Your task to perform on an android device: visit the assistant section in the google photos Image 0: 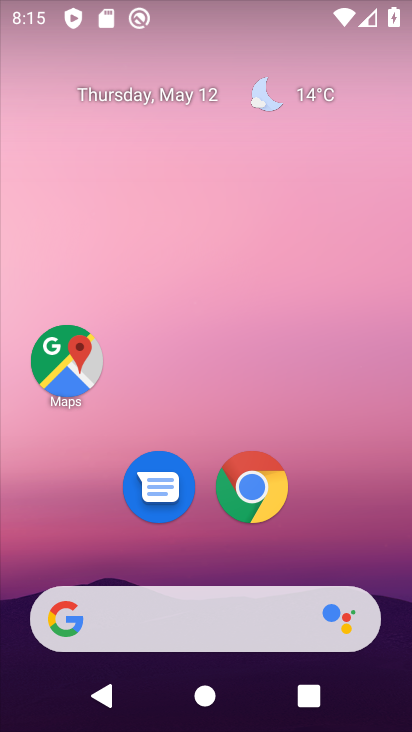
Step 0: drag from (368, 536) to (363, 0)
Your task to perform on an android device: visit the assistant section in the google photos Image 1: 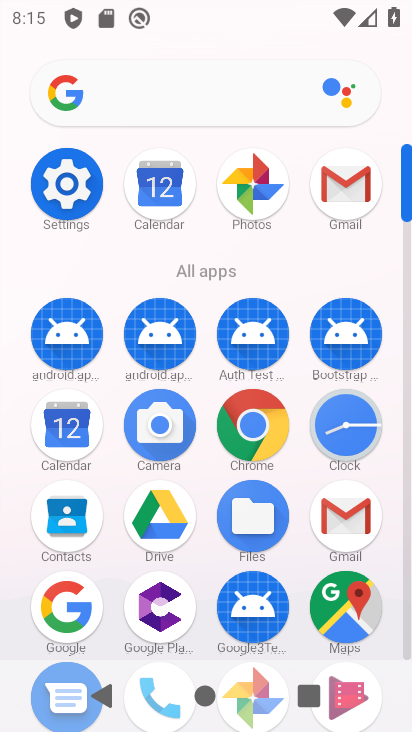
Step 1: click (252, 188)
Your task to perform on an android device: visit the assistant section in the google photos Image 2: 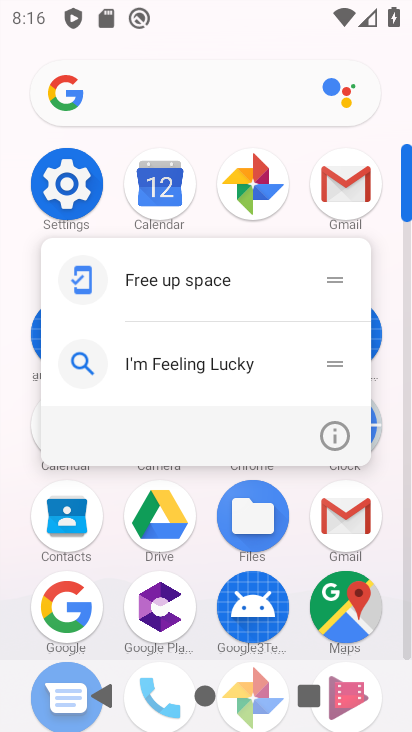
Step 2: click (252, 188)
Your task to perform on an android device: visit the assistant section in the google photos Image 3: 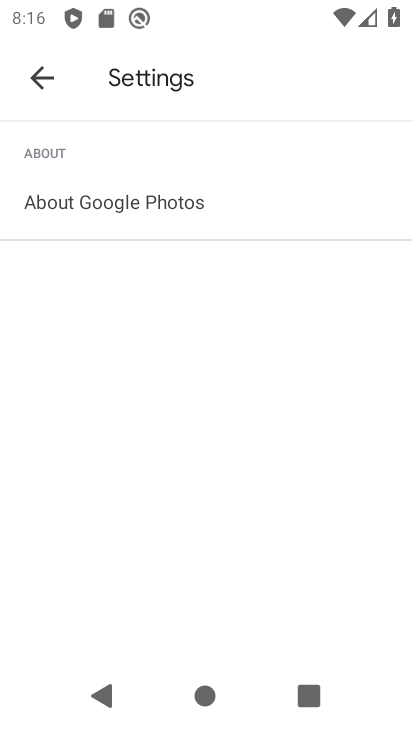
Step 3: click (41, 84)
Your task to perform on an android device: visit the assistant section in the google photos Image 4: 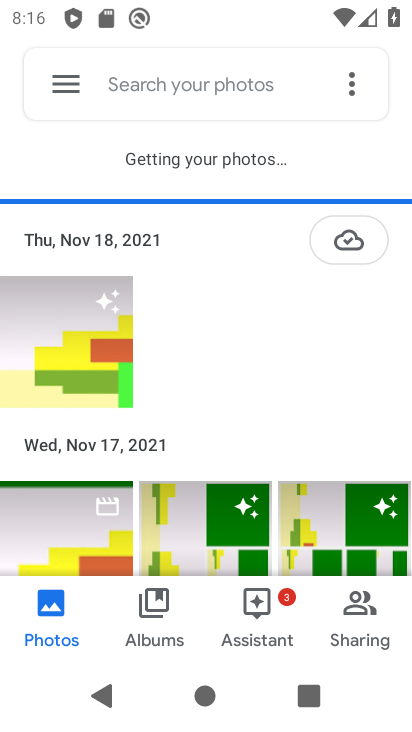
Step 4: click (268, 624)
Your task to perform on an android device: visit the assistant section in the google photos Image 5: 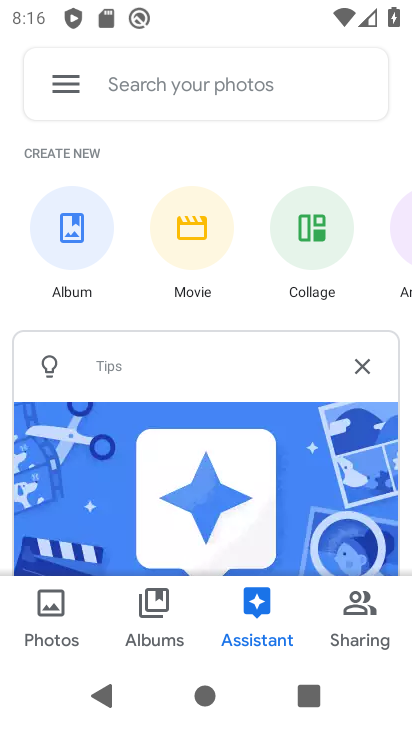
Step 5: task complete